Your task to perform on an android device: uninstall "Venmo" Image 0: 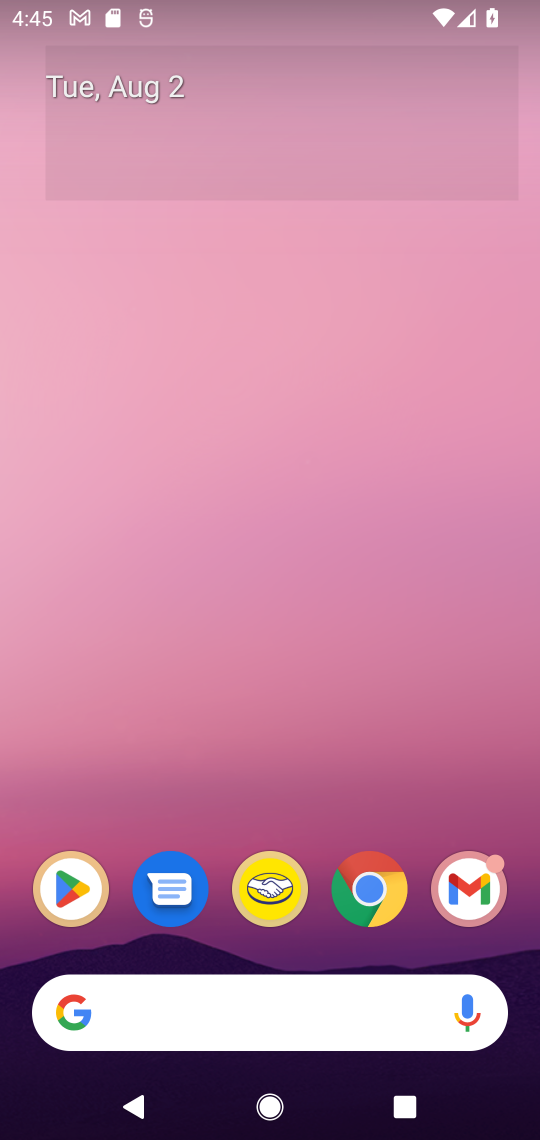
Step 0: press home button
Your task to perform on an android device: uninstall "Venmo" Image 1: 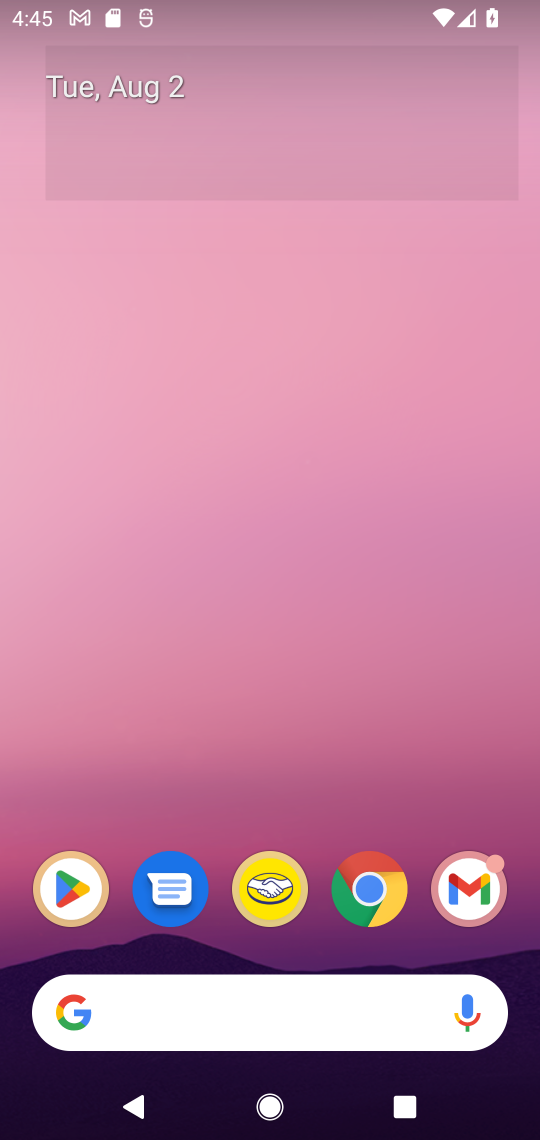
Step 1: drag from (415, 728) to (404, 81)
Your task to perform on an android device: uninstall "Venmo" Image 2: 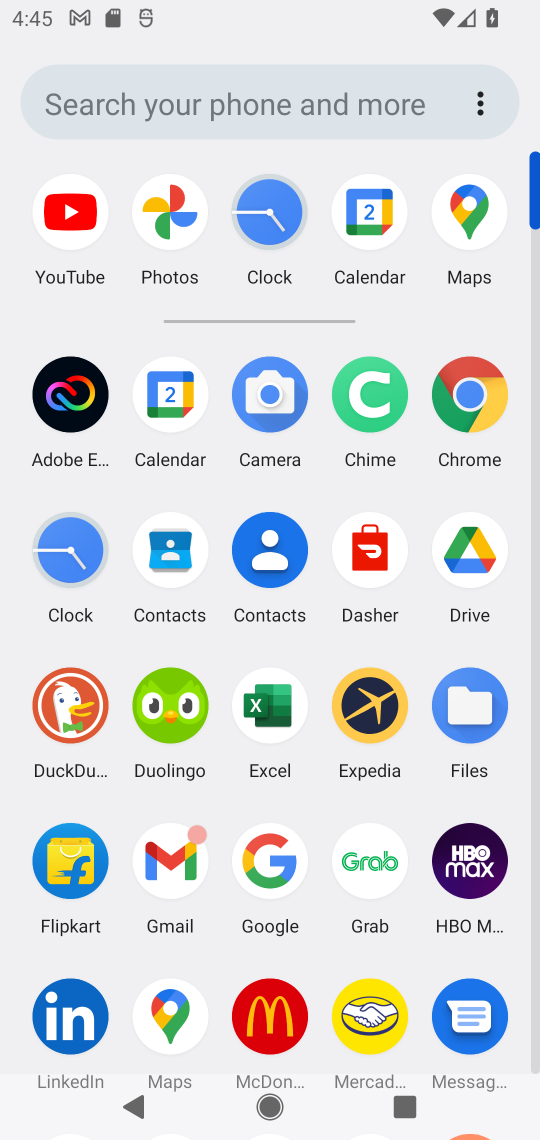
Step 2: drag from (509, 952) to (499, 382)
Your task to perform on an android device: uninstall "Venmo" Image 3: 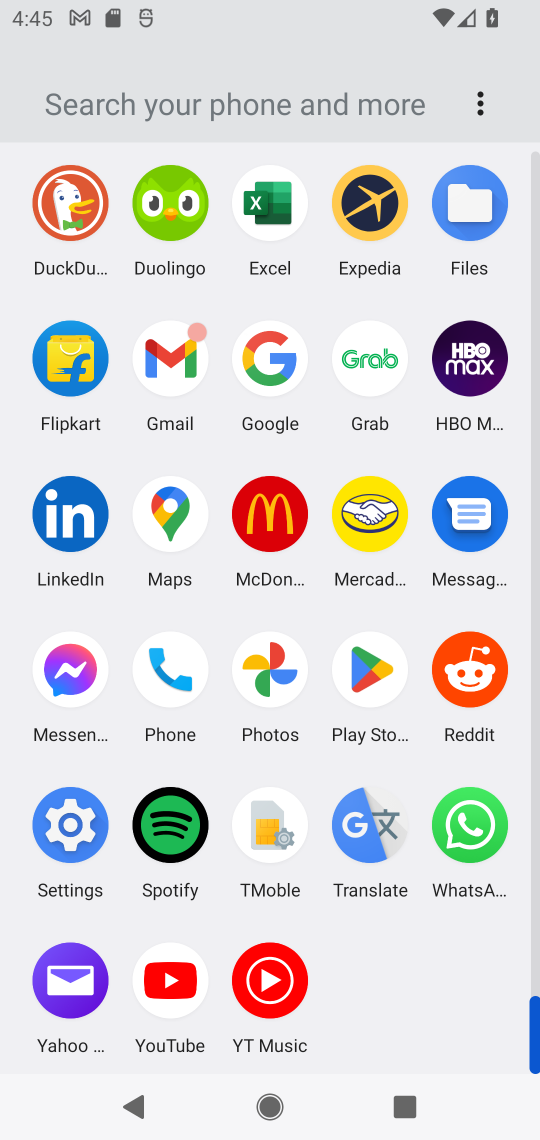
Step 3: click (373, 671)
Your task to perform on an android device: uninstall "Venmo" Image 4: 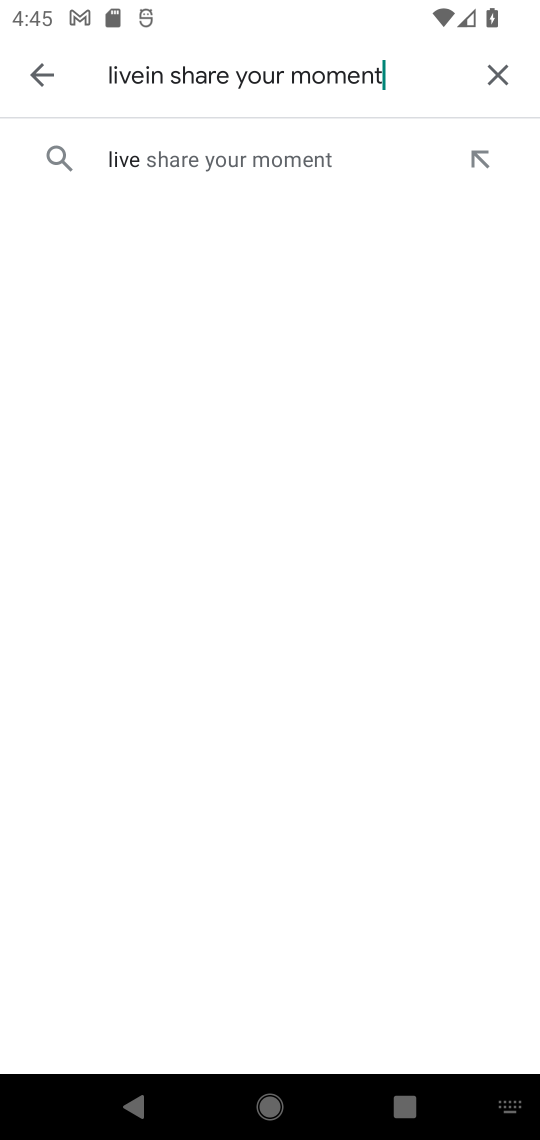
Step 4: click (494, 69)
Your task to perform on an android device: uninstall "Venmo" Image 5: 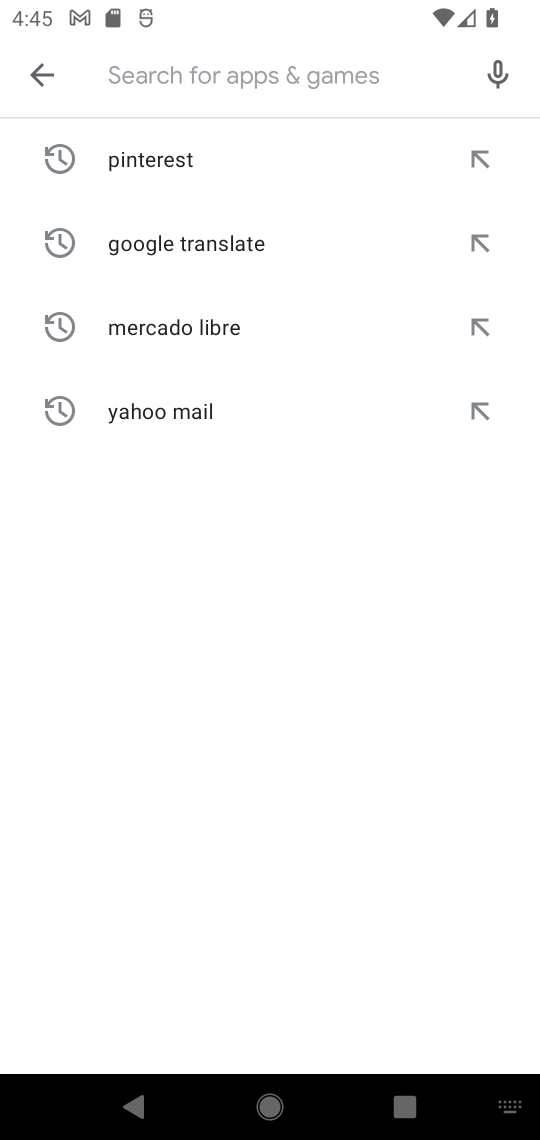
Step 5: click (378, 85)
Your task to perform on an android device: uninstall "Venmo" Image 6: 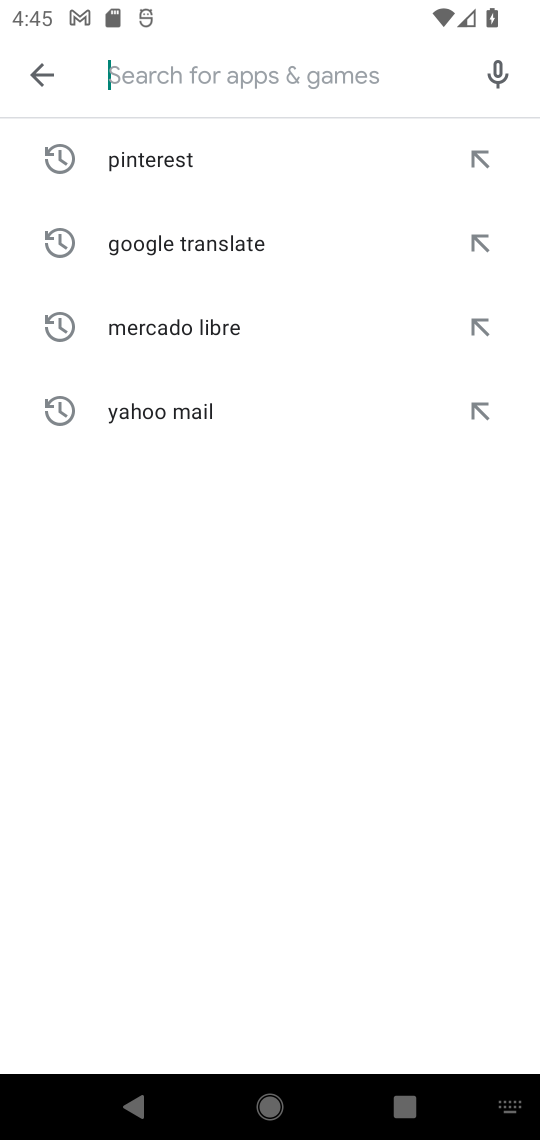
Step 6: type "venmo"
Your task to perform on an android device: uninstall "Venmo" Image 7: 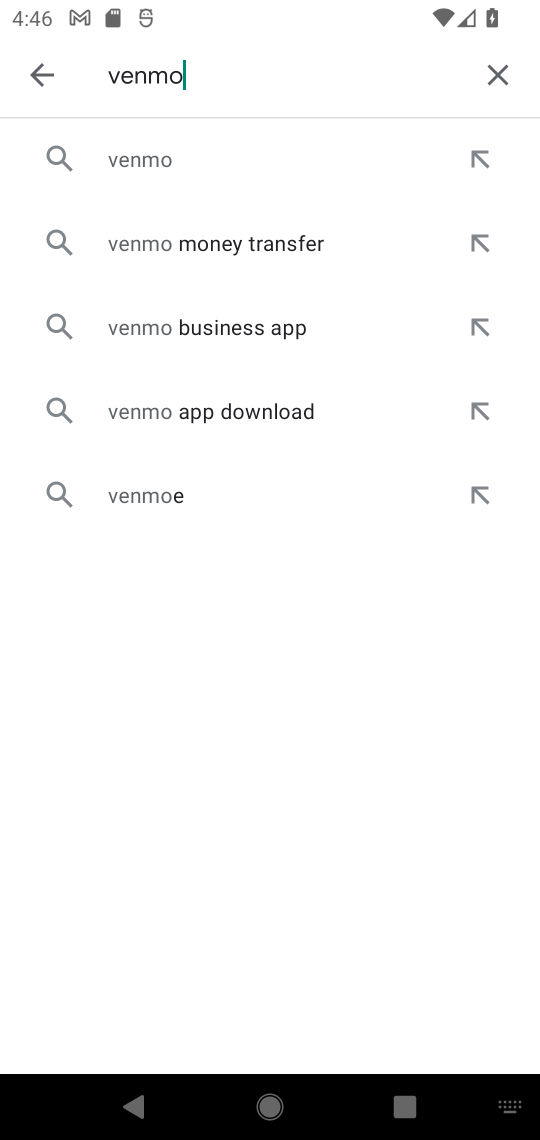
Step 7: click (206, 159)
Your task to perform on an android device: uninstall "Venmo" Image 8: 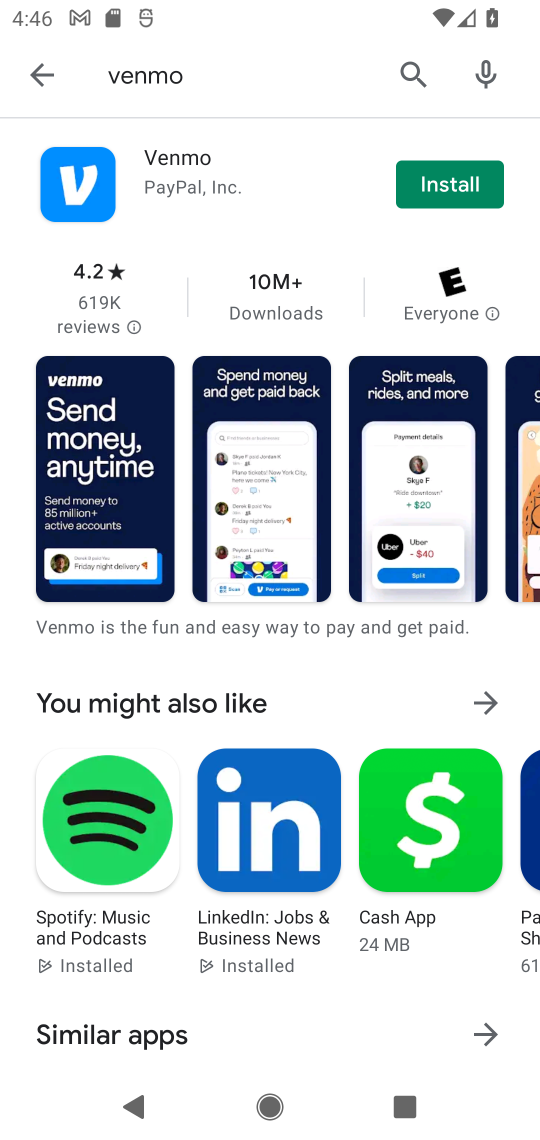
Step 8: task complete